Your task to perform on an android device: install app "ZOOM Cloud Meetings" Image 0: 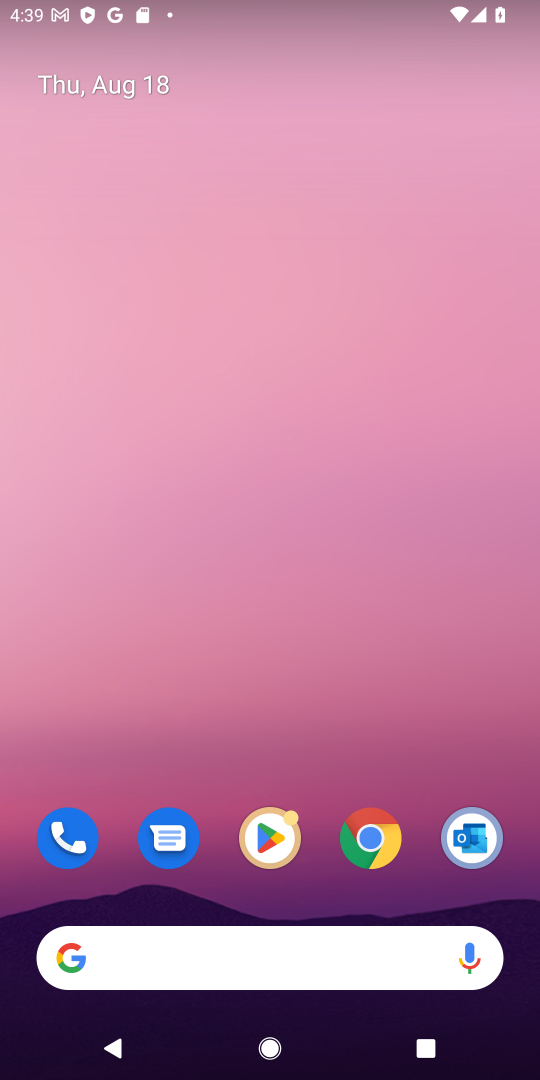
Step 0: drag from (239, 952) to (299, 56)
Your task to perform on an android device: install app "ZOOM Cloud Meetings" Image 1: 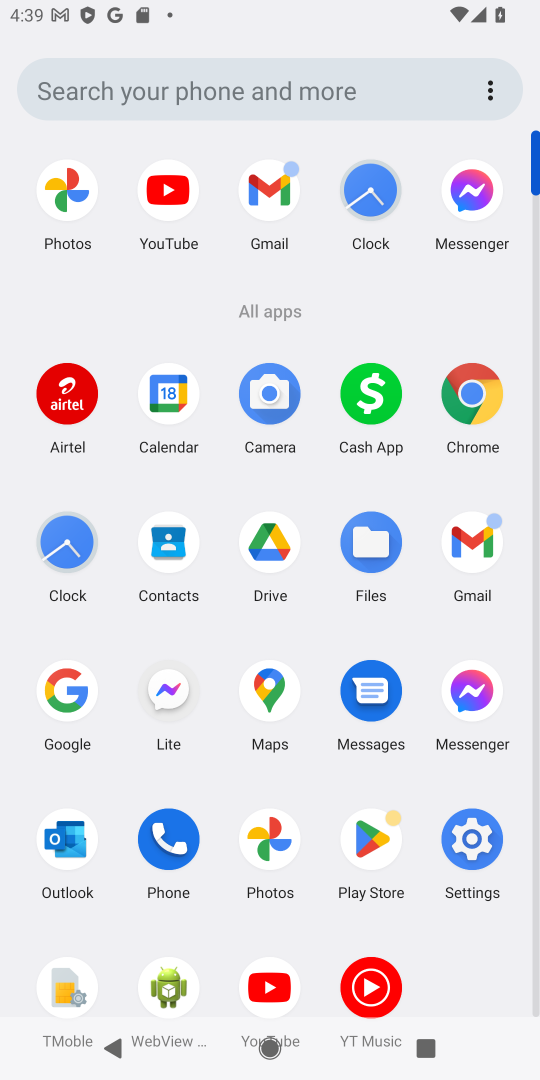
Step 1: click (383, 840)
Your task to perform on an android device: install app "ZOOM Cloud Meetings" Image 2: 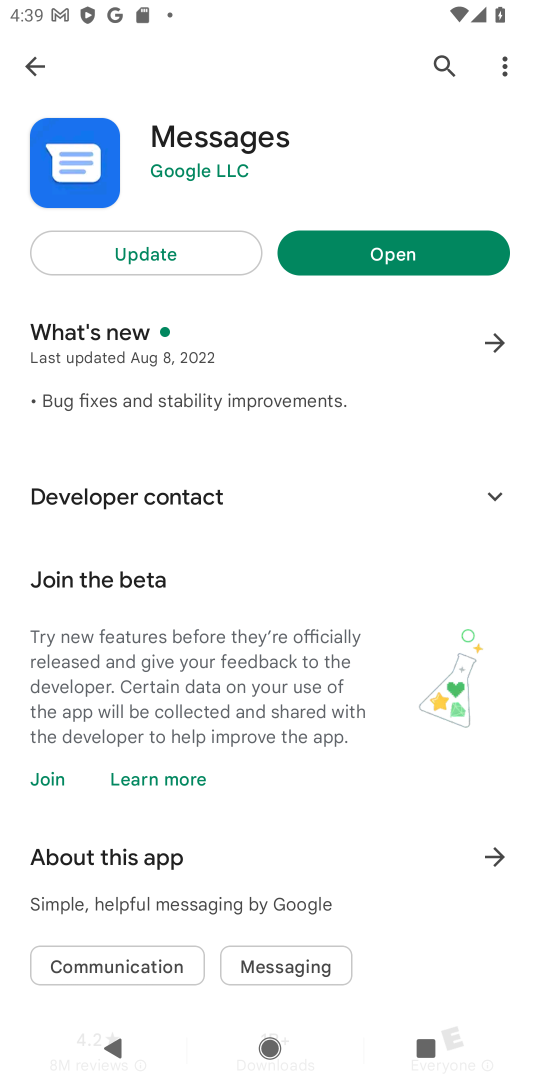
Step 2: press back button
Your task to perform on an android device: install app "ZOOM Cloud Meetings" Image 3: 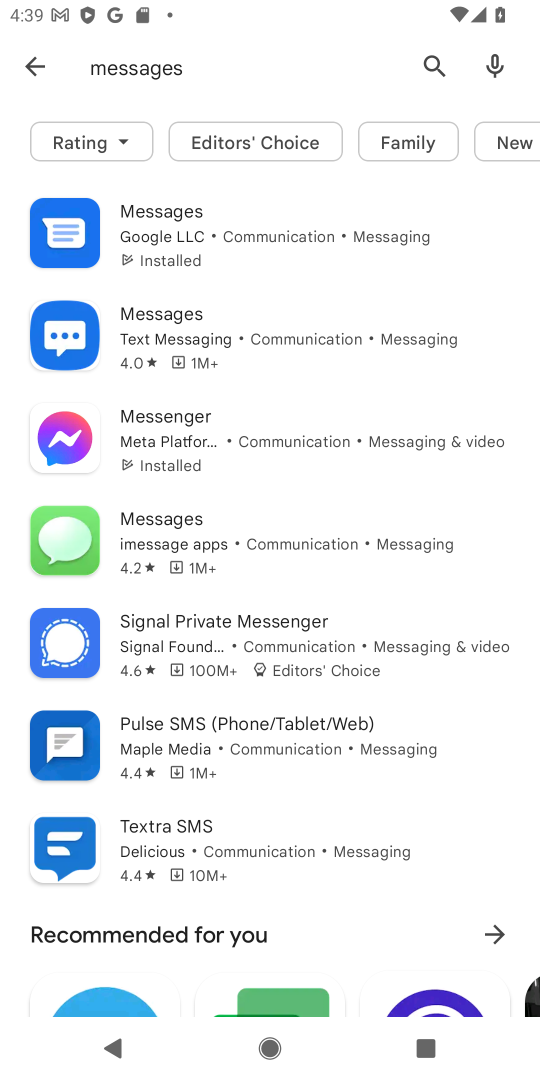
Step 3: press back button
Your task to perform on an android device: install app "ZOOM Cloud Meetings" Image 4: 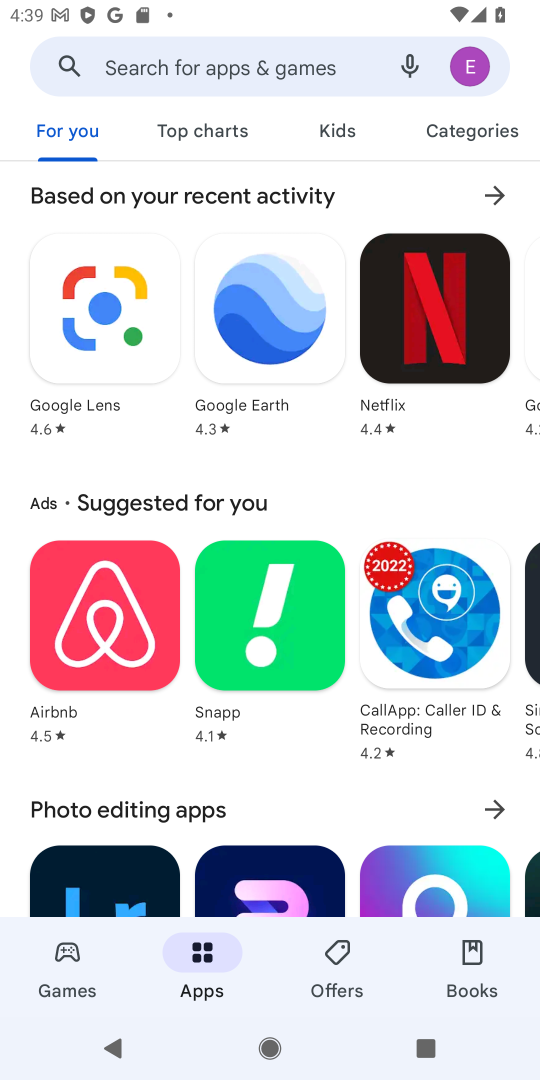
Step 4: click (280, 77)
Your task to perform on an android device: install app "ZOOM Cloud Meetings" Image 5: 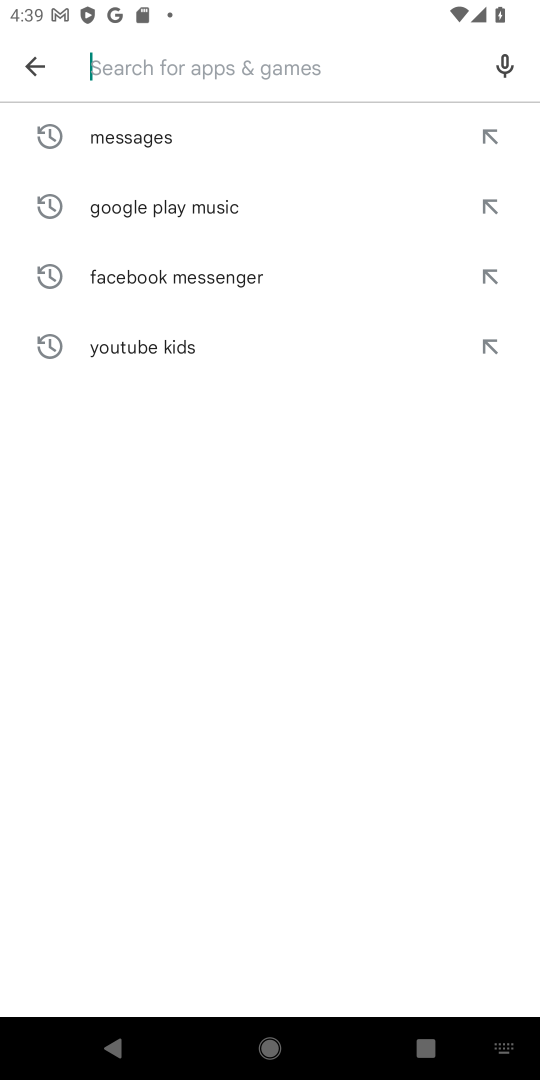
Step 5: type "ZOOM Cloud Meetings"
Your task to perform on an android device: install app "ZOOM Cloud Meetings" Image 6: 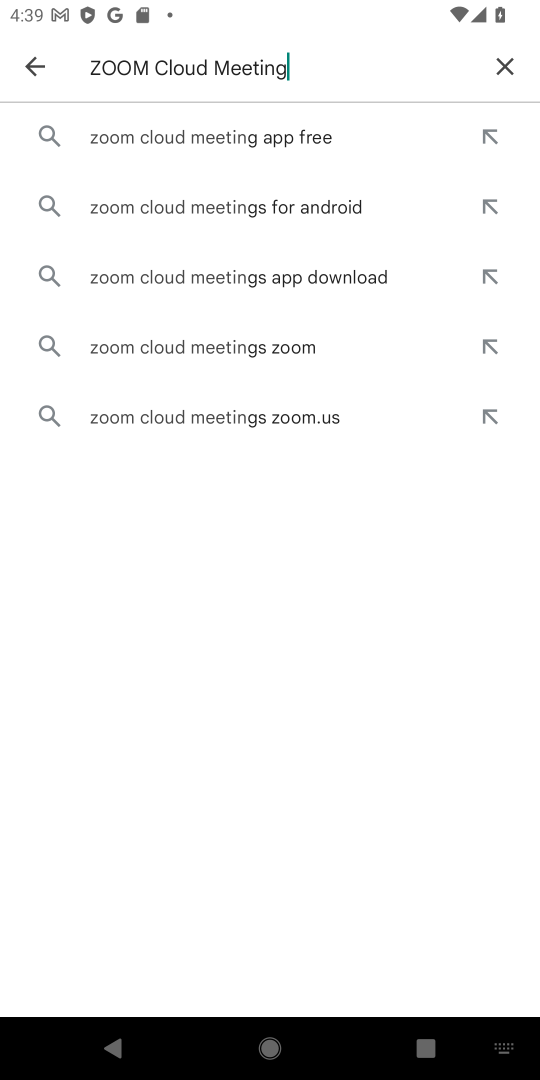
Step 6: type ""
Your task to perform on an android device: install app "ZOOM Cloud Meetings" Image 7: 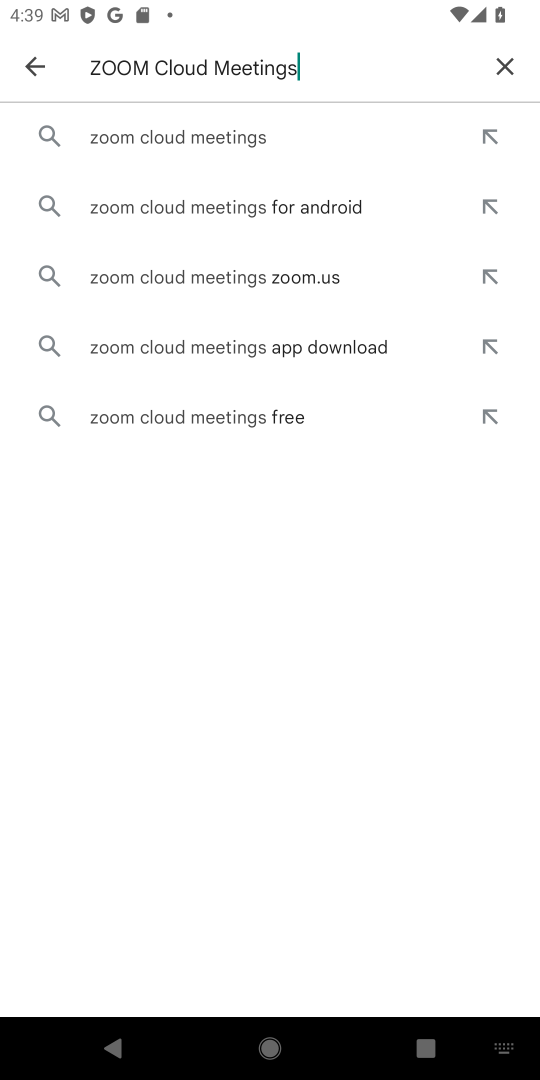
Step 7: click (180, 147)
Your task to perform on an android device: install app "ZOOM Cloud Meetings" Image 8: 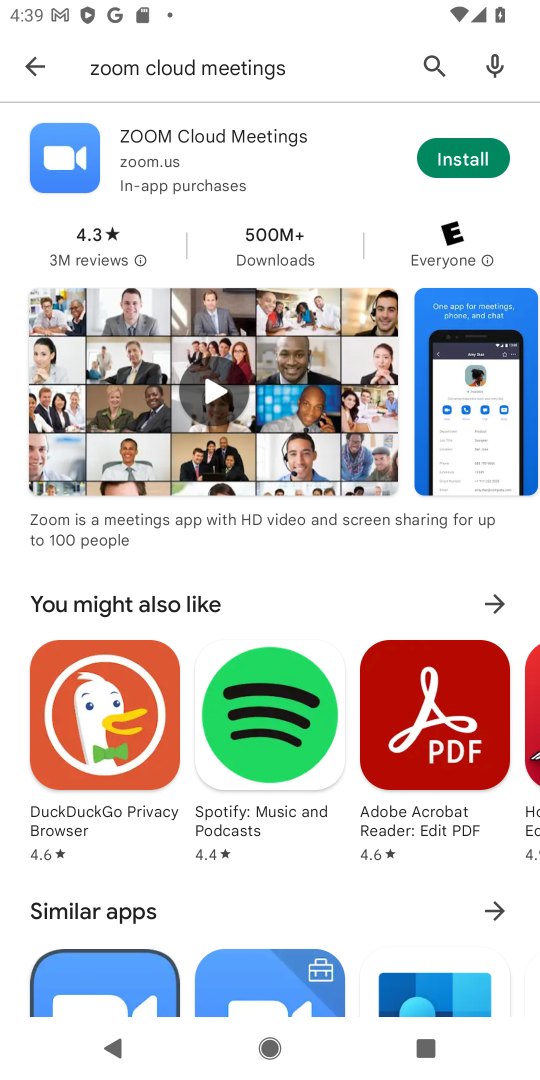
Step 8: click (488, 154)
Your task to perform on an android device: install app "ZOOM Cloud Meetings" Image 9: 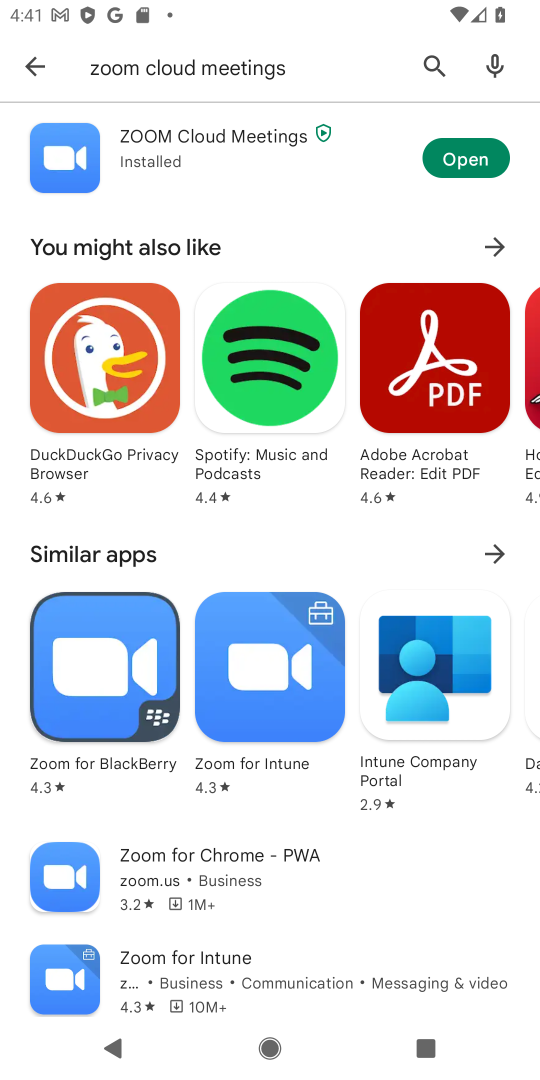
Step 9: task complete